Your task to perform on an android device: Do I have any events this weekend? Image 0: 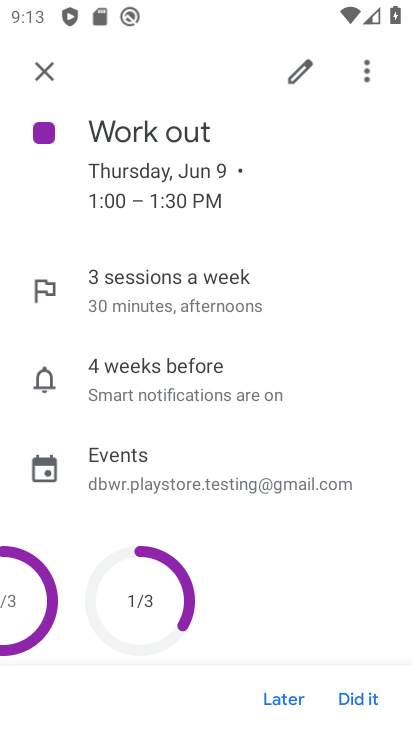
Step 0: click (42, 64)
Your task to perform on an android device: Do I have any events this weekend? Image 1: 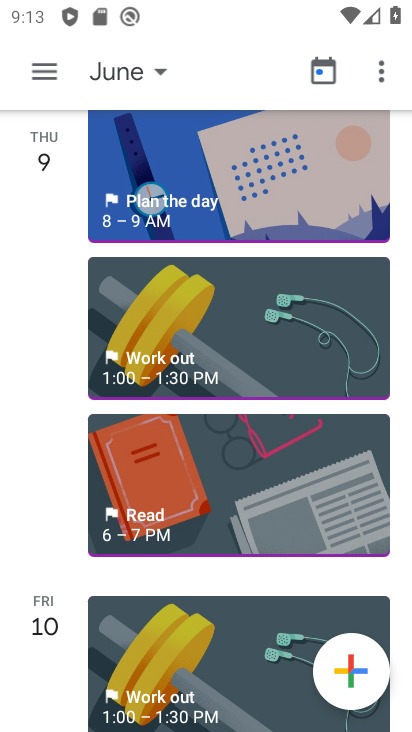
Step 1: drag from (226, 675) to (329, 116)
Your task to perform on an android device: Do I have any events this weekend? Image 2: 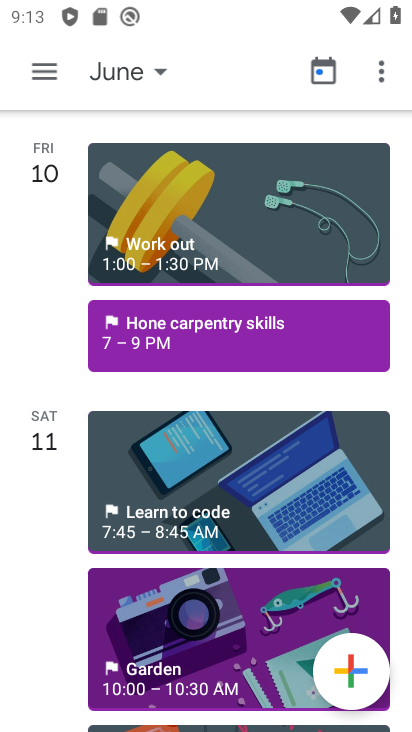
Step 2: drag from (200, 598) to (239, 286)
Your task to perform on an android device: Do I have any events this weekend? Image 3: 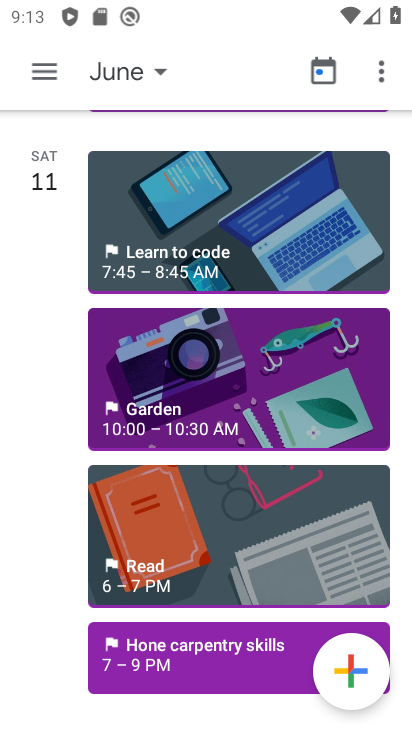
Step 3: click (176, 671)
Your task to perform on an android device: Do I have any events this weekend? Image 4: 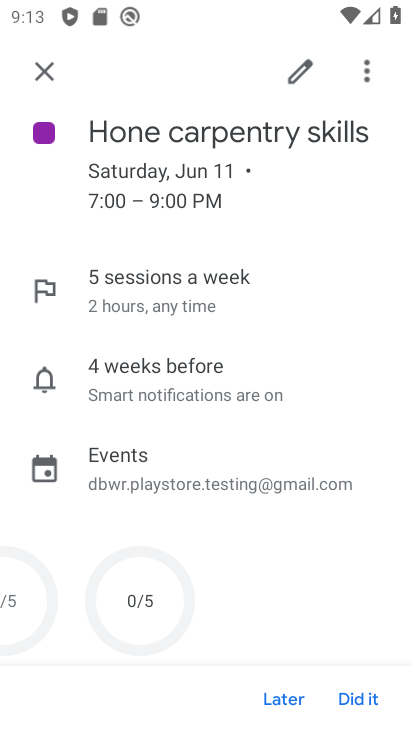
Step 4: task complete